Your task to perform on an android device: turn off location history Image 0: 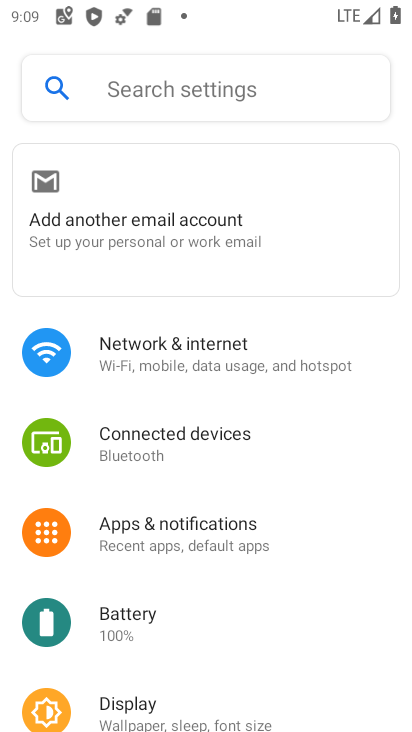
Step 0: drag from (250, 662) to (210, 162)
Your task to perform on an android device: turn off location history Image 1: 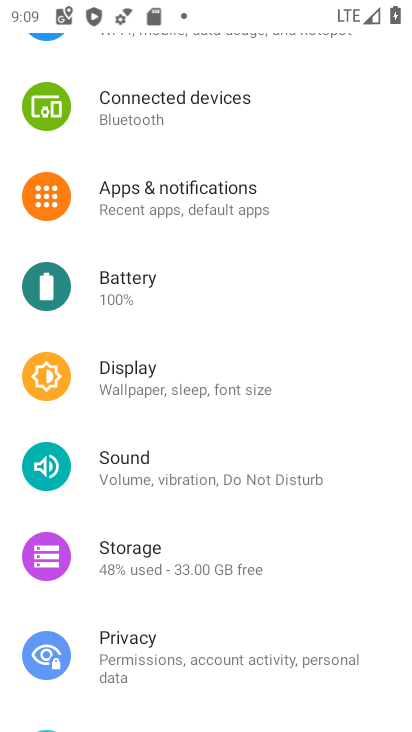
Step 1: drag from (231, 633) to (238, 294)
Your task to perform on an android device: turn off location history Image 2: 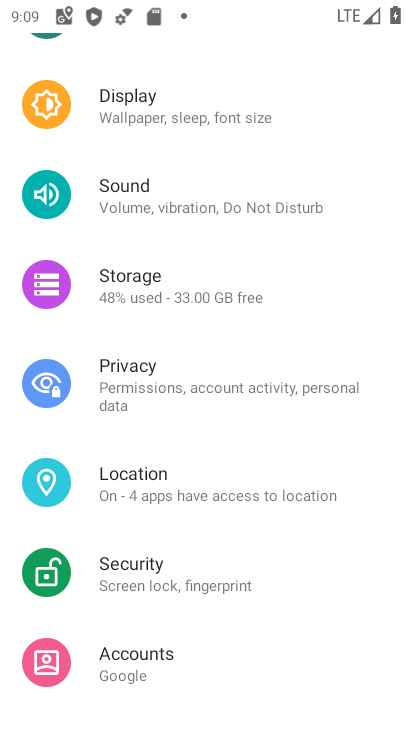
Step 2: click (210, 475)
Your task to perform on an android device: turn off location history Image 3: 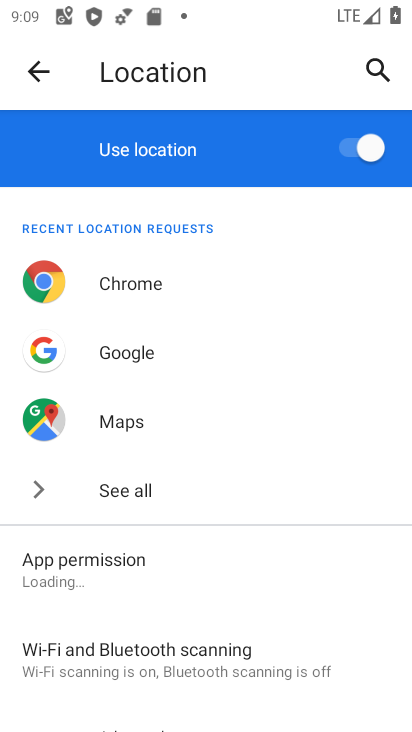
Step 3: click (353, 142)
Your task to perform on an android device: turn off location history Image 4: 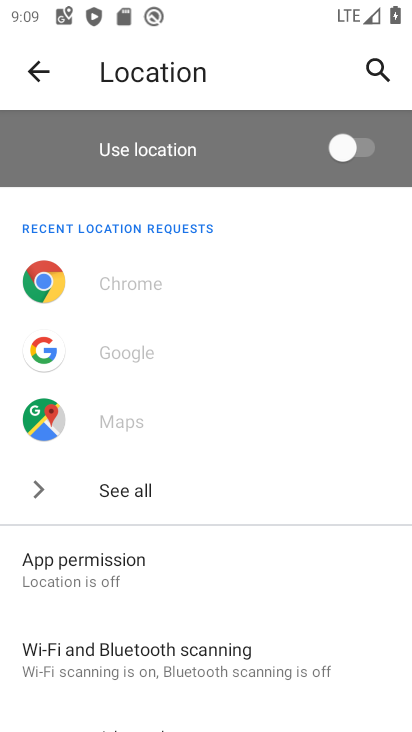
Step 4: task complete